Your task to perform on an android device: turn off sleep mode Image 0: 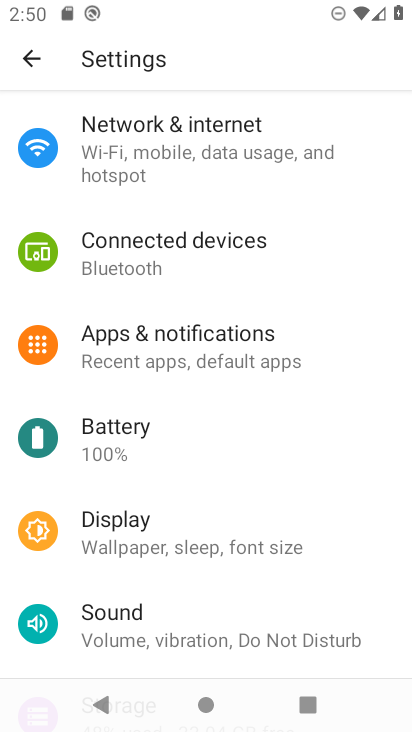
Step 0: drag from (302, 586) to (333, 140)
Your task to perform on an android device: turn off sleep mode Image 1: 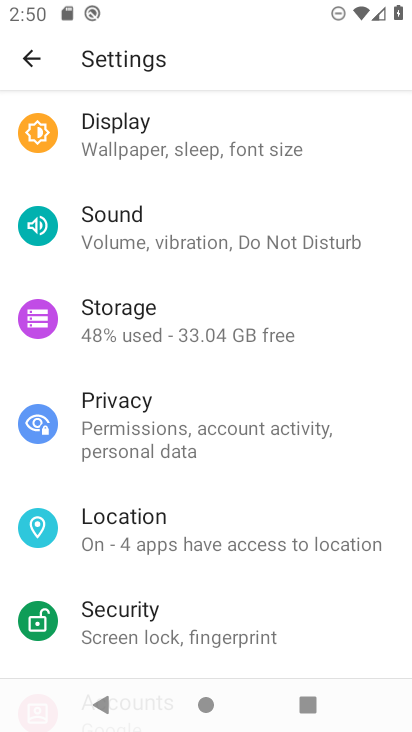
Step 1: click (210, 156)
Your task to perform on an android device: turn off sleep mode Image 2: 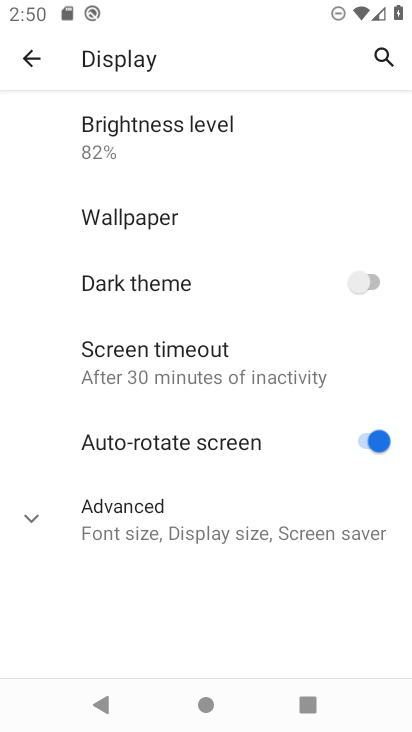
Step 2: task complete